Your task to perform on an android device: set the stopwatch Image 0: 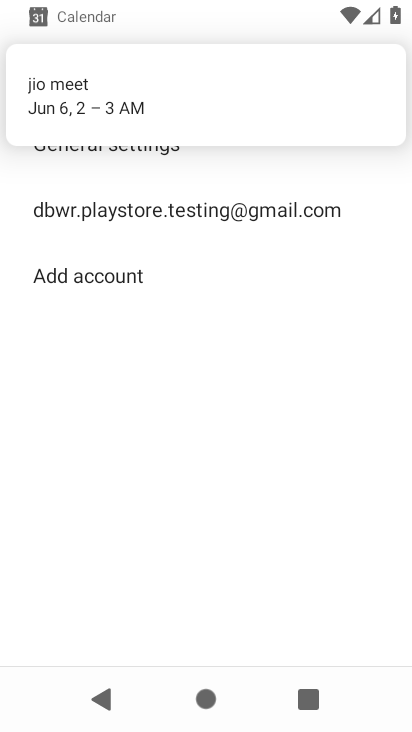
Step 0: press home button
Your task to perform on an android device: set the stopwatch Image 1: 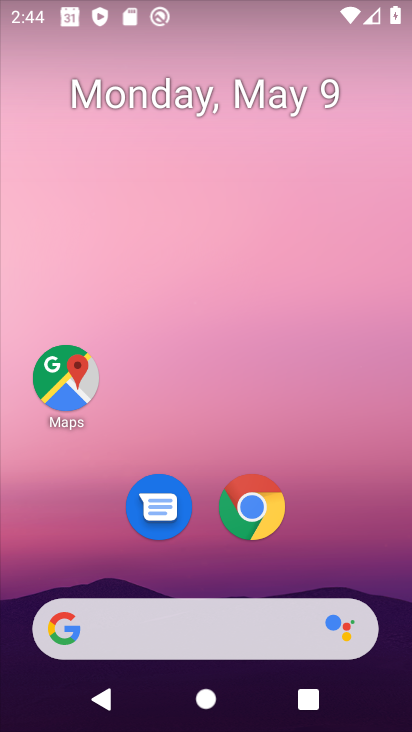
Step 1: drag from (243, 590) to (320, 122)
Your task to perform on an android device: set the stopwatch Image 2: 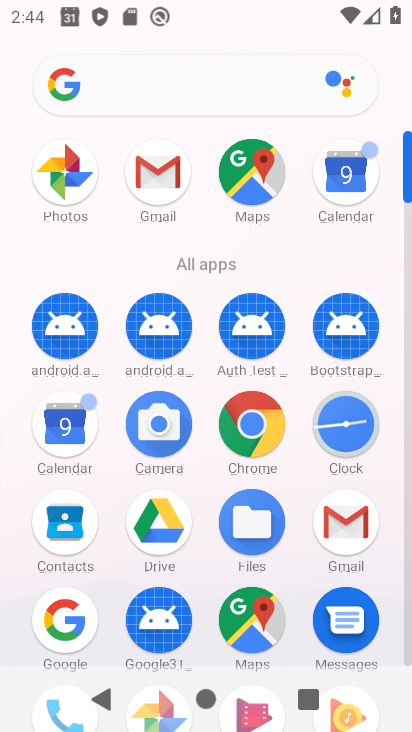
Step 2: click (351, 420)
Your task to perform on an android device: set the stopwatch Image 3: 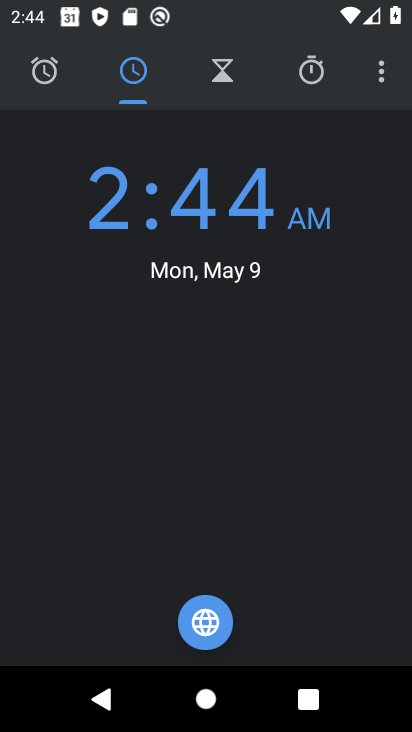
Step 3: click (301, 72)
Your task to perform on an android device: set the stopwatch Image 4: 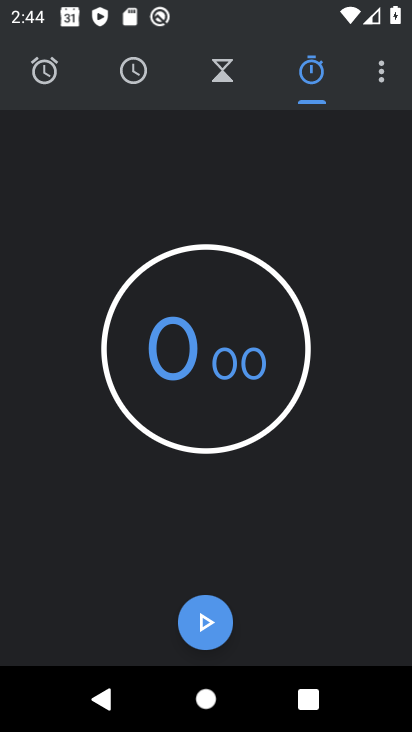
Step 4: click (197, 649)
Your task to perform on an android device: set the stopwatch Image 5: 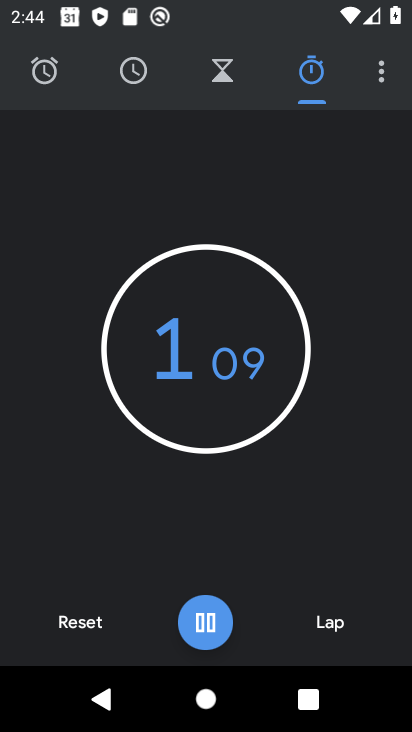
Step 5: click (200, 628)
Your task to perform on an android device: set the stopwatch Image 6: 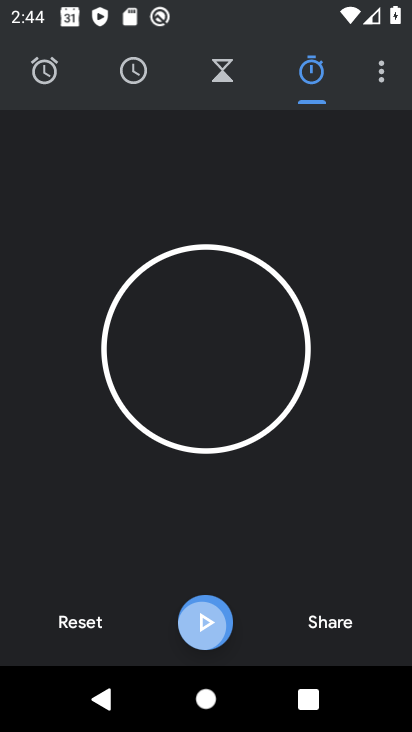
Step 6: click (200, 628)
Your task to perform on an android device: set the stopwatch Image 7: 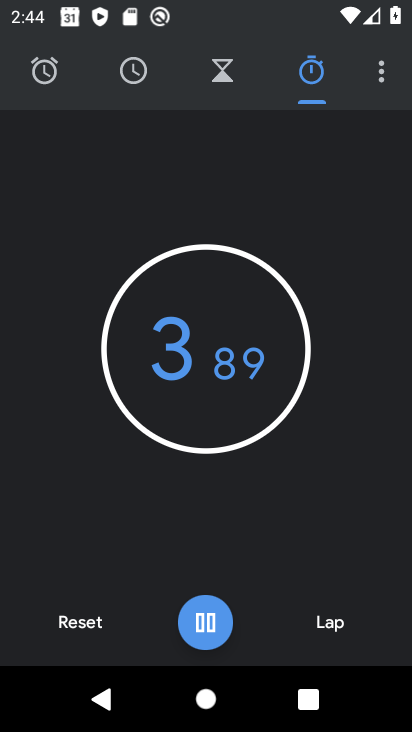
Step 7: click (204, 626)
Your task to perform on an android device: set the stopwatch Image 8: 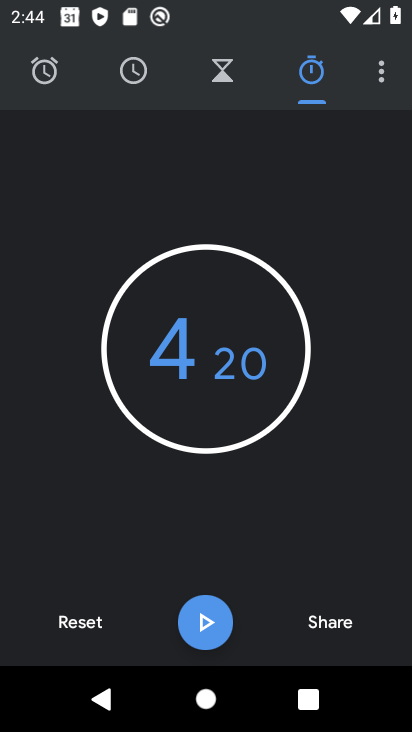
Step 8: click (204, 626)
Your task to perform on an android device: set the stopwatch Image 9: 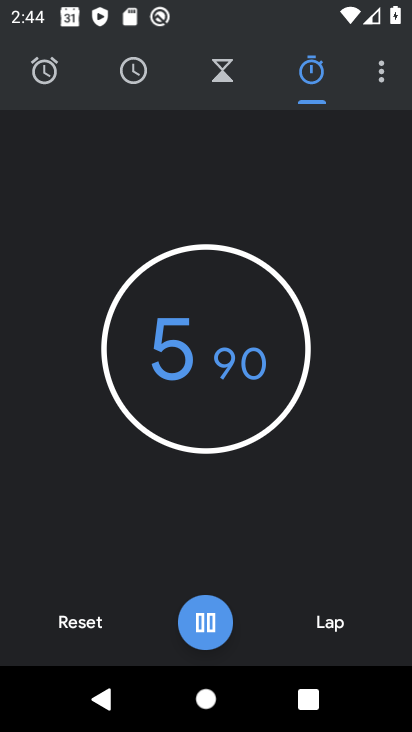
Step 9: click (204, 626)
Your task to perform on an android device: set the stopwatch Image 10: 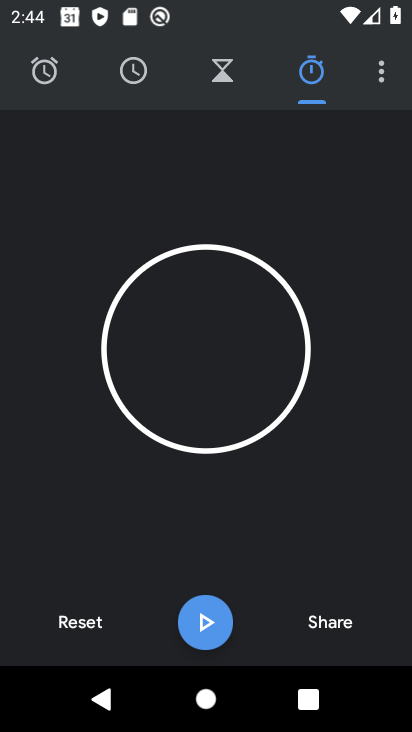
Step 10: task complete